Your task to perform on an android device: empty trash in google photos Image 0: 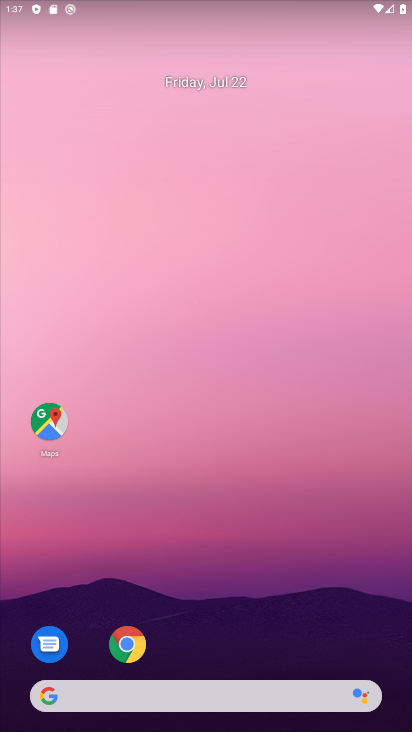
Step 0: drag from (283, 625) to (323, 143)
Your task to perform on an android device: empty trash in google photos Image 1: 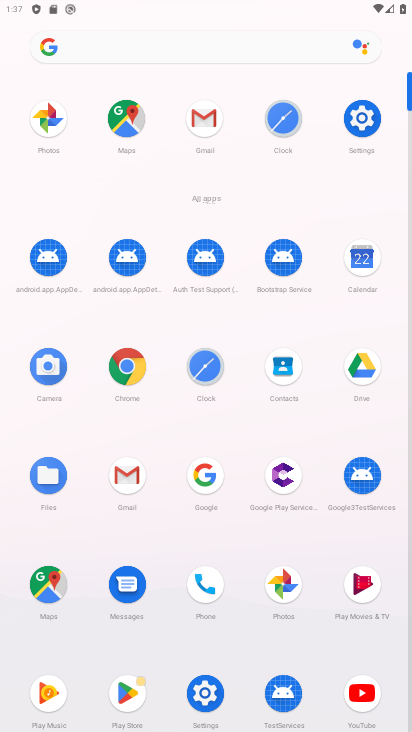
Step 1: click (284, 584)
Your task to perform on an android device: empty trash in google photos Image 2: 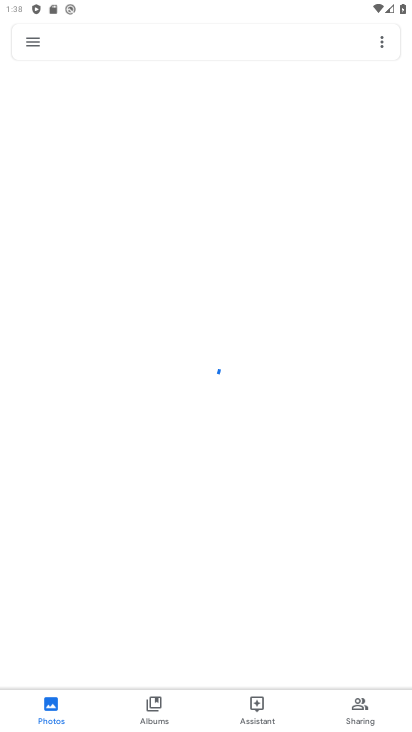
Step 2: click (29, 49)
Your task to perform on an android device: empty trash in google photos Image 3: 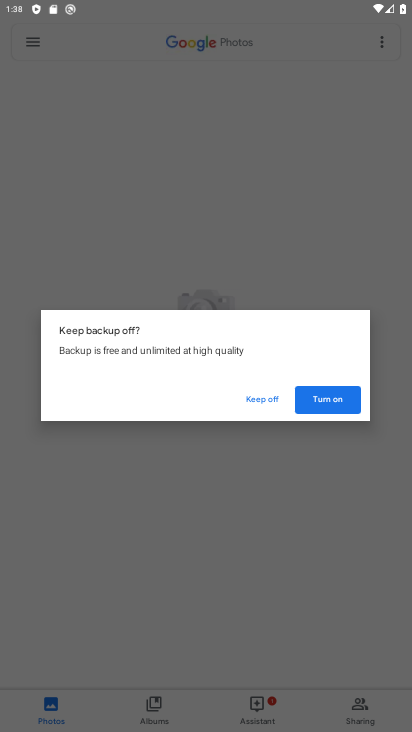
Step 3: click (337, 392)
Your task to perform on an android device: empty trash in google photos Image 4: 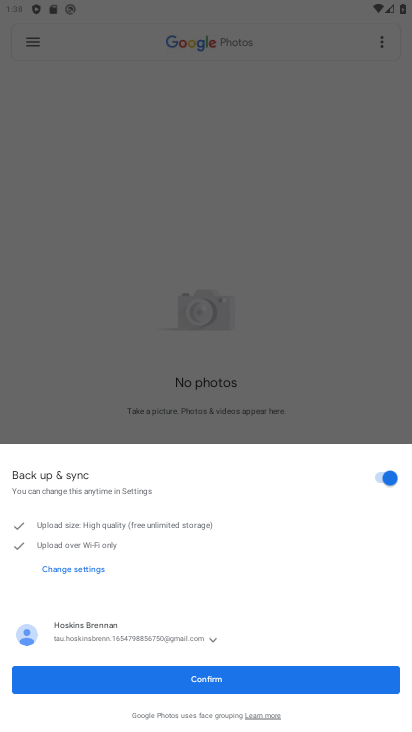
Step 4: click (222, 676)
Your task to perform on an android device: empty trash in google photos Image 5: 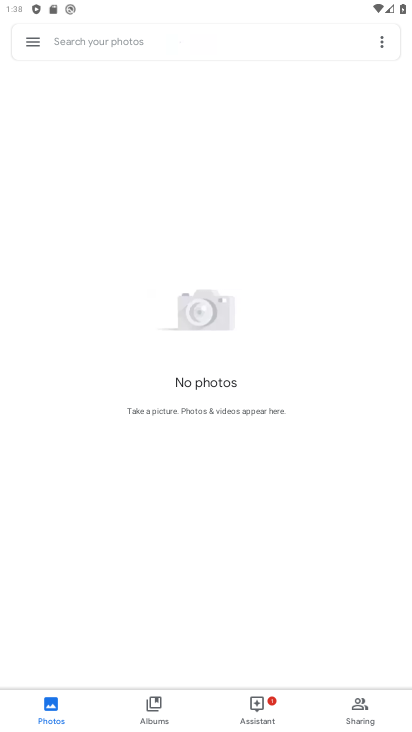
Step 5: click (33, 43)
Your task to perform on an android device: empty trash in google photos Image 6: 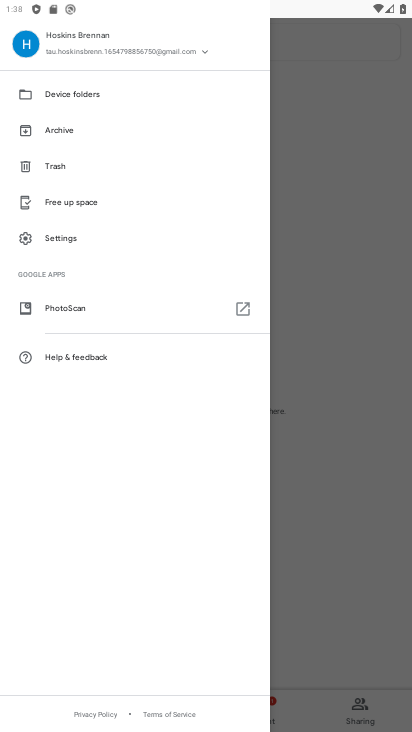
Step 6: click (39, 160)
Your task to perform on an android device: empty trash in google photos Image 7: 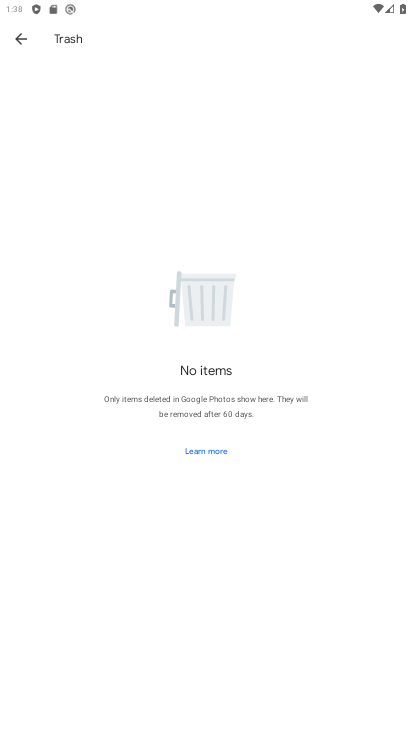
Step 7: task complete